Your task to perform on an android device: Open wifi settings Image 0: 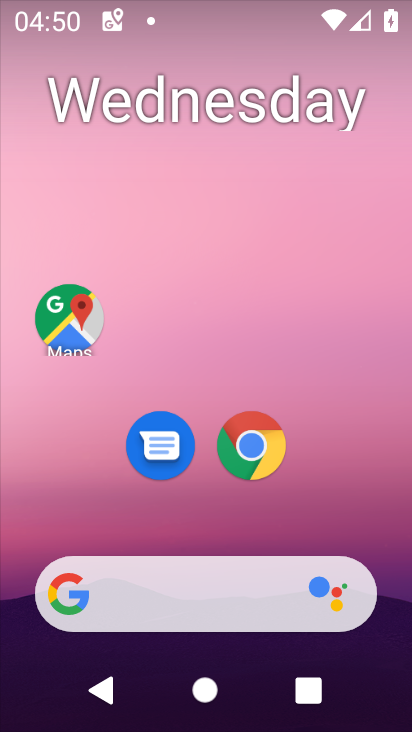
Step 0: drag from (216, 19) to (225, 705)
Your task to perform on an android device: Open wifi settings Image 1: 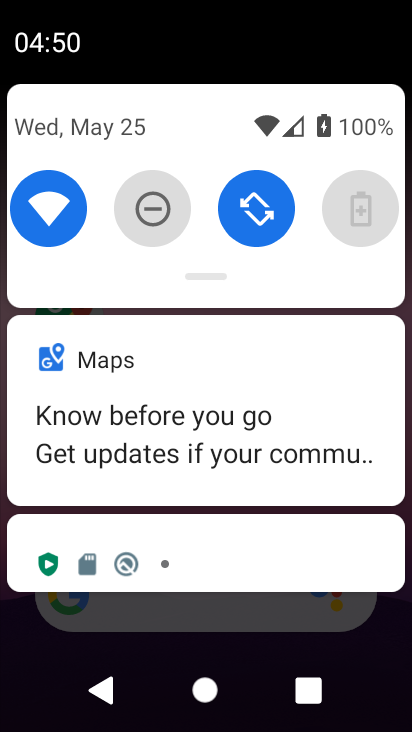
Step 1: click (46, 239)
Your task to perform on an android device: Open wifi settings Image 2: 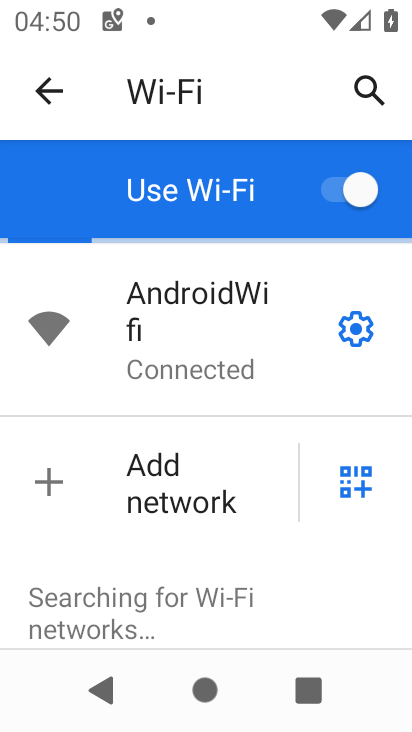
Step 2: task complete